Your task to perform on an android device: Open privacy settings Image 0: 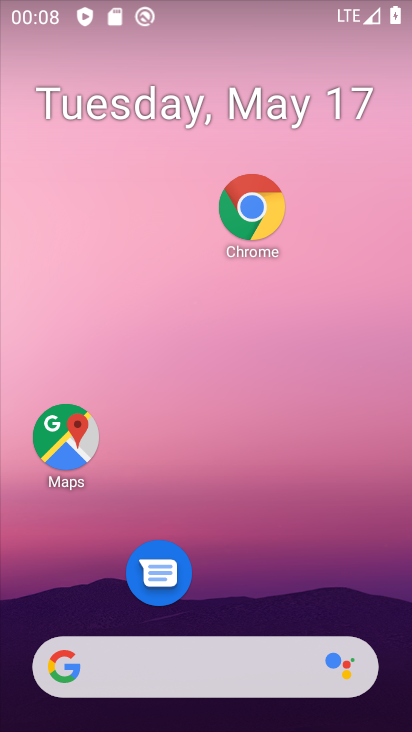
Step 0: drag from (328, 642) to (333, 60)
Your task to perform on an android device: Open privacy settings Image 1: 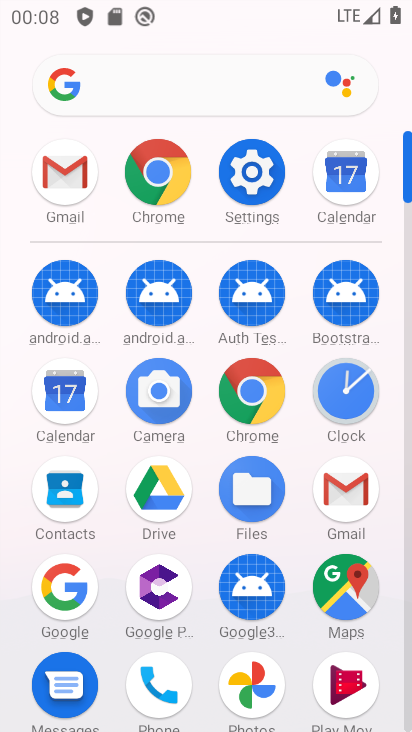
Step 1: click (266, 170)
Your task to perform on an android device: Open privacy settings Image 2: 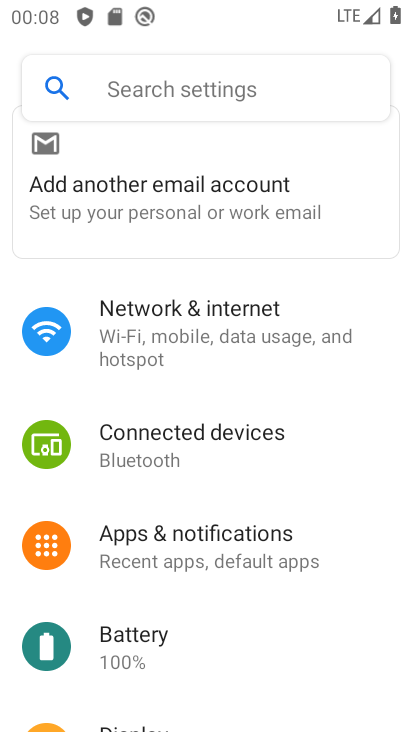
Step 2: drag from (233, 605) to (303, 25)
Your task to perform on an android device: Open privacy settings Image 3: 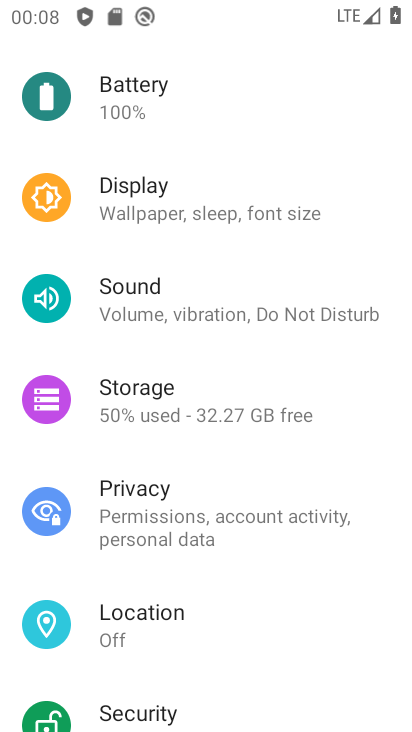
Step 3: click (190, 504)
Your task to perform on an android device: Open privacy settings Image 4: 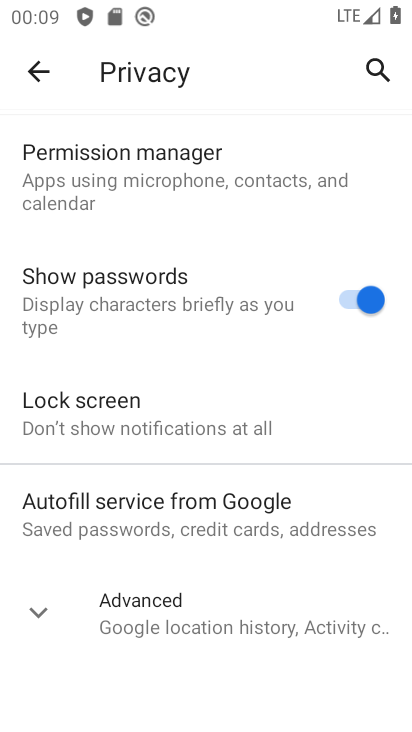
Step 4: task complete